Your task to perform on an android device: Go to location settings Image 0: 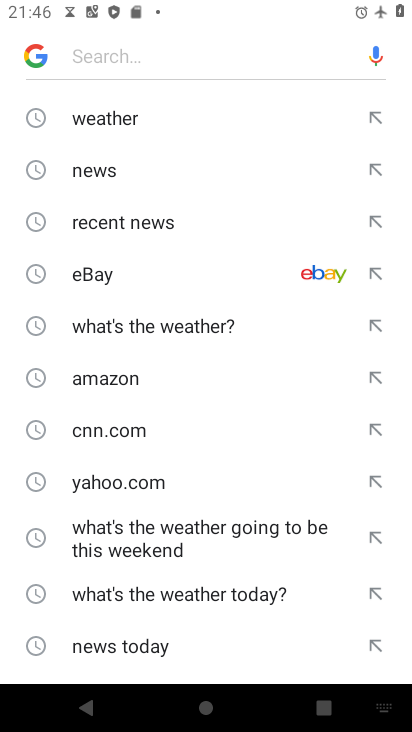
Step 0: press home button
Your task to perform on an android device: Go to location settings Image 1: 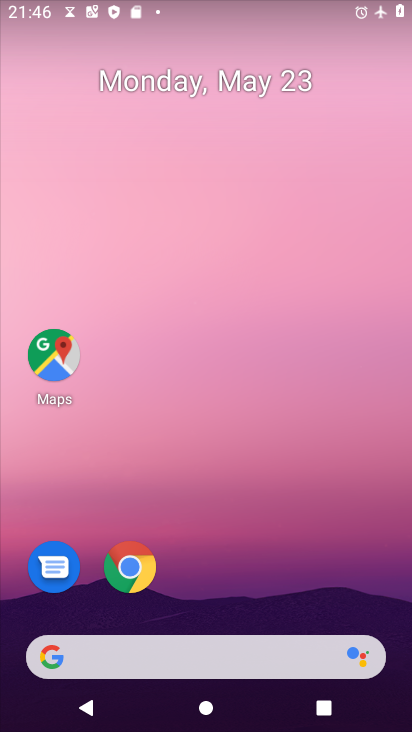
Step 1: drag from (284, 556) to (292, 228)
Your task to perform on an android device: Go to location settings Image 2: 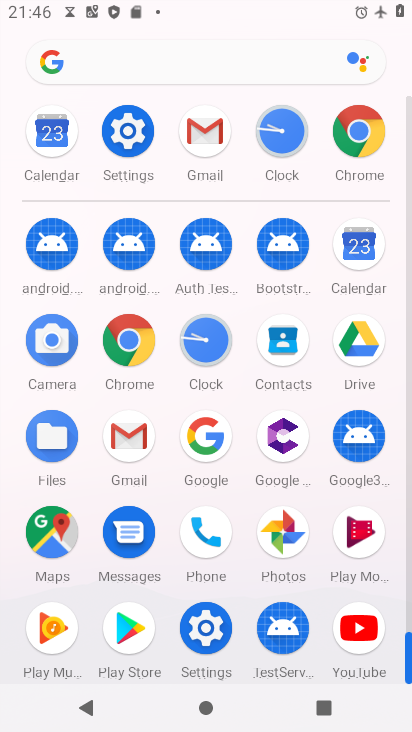
Step 2: click (136, 131)
Your task to perform on an android device: Go to location settings Image 3: 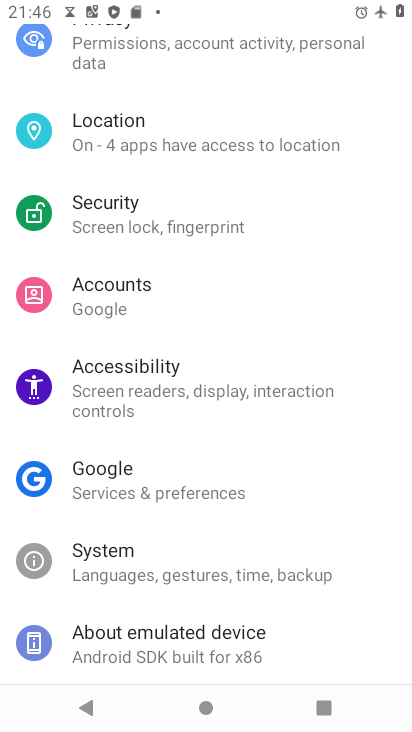
Step 3: click (135, 156)
Your task to perform on an android device: Go to location settings Image 4: 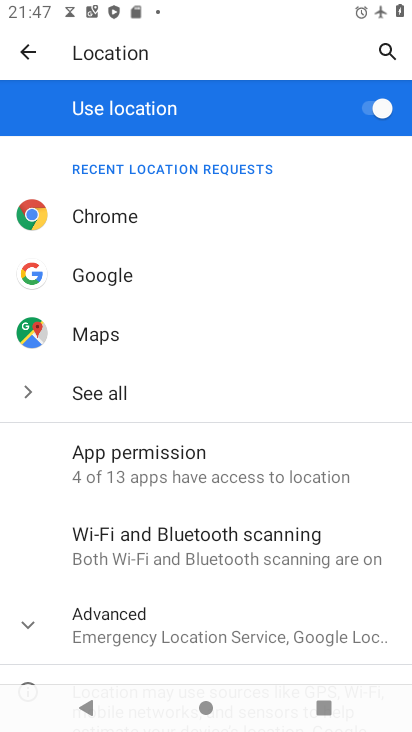
Step 4: task complete